Your task to perform on an android device: Open Youtube and go to the subscriptions tab Image 0: 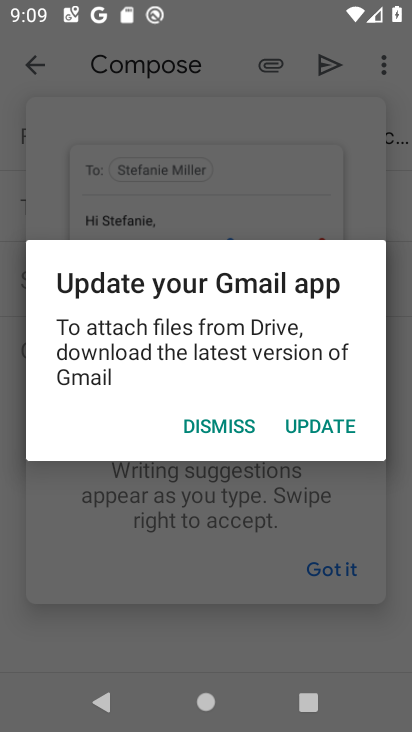
Step 0: press home button
Your task to perform on an android device: Open Youtube and go to the subscriptions tab Image 1: 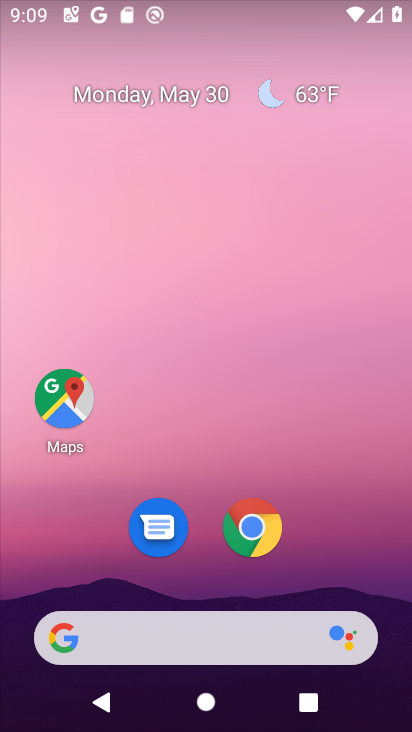
Step 1: drag from (308, 578) to (282, 216)
Your task to perform on an android device: Open Youtube and go to the subscriptions tab Image 2: 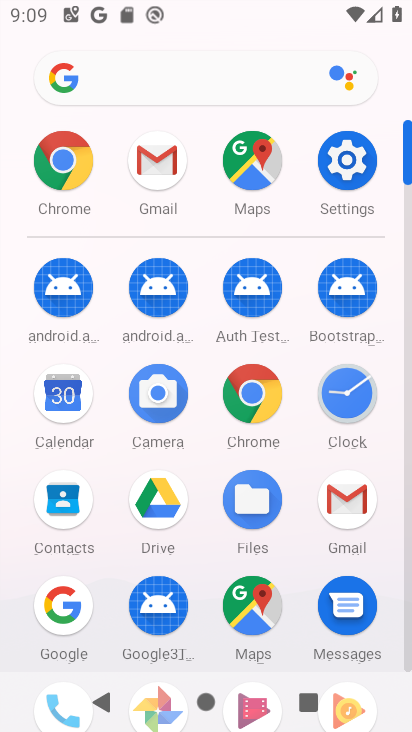
Step 2: drag from (308, 615) to (339, 176)
Your task to perform on an android device: Open Youtube and go to the subscriptions tab Image 3: 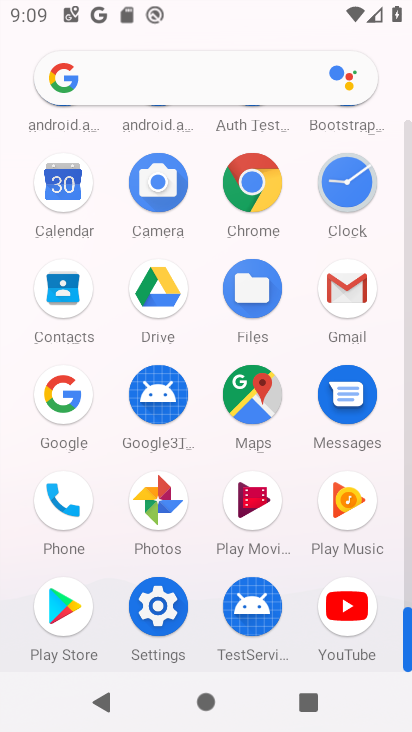
Step 3: click (335, 598)
Your task to perform on an android device: Open Youtube and go to the subscriptions tab Image 4: 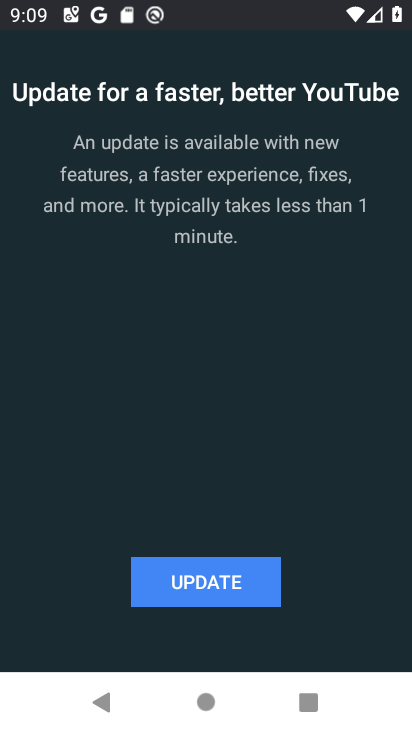
Step 4: task complete